Your task to perform on an android device: Open Maps and search for coffee Image 0: 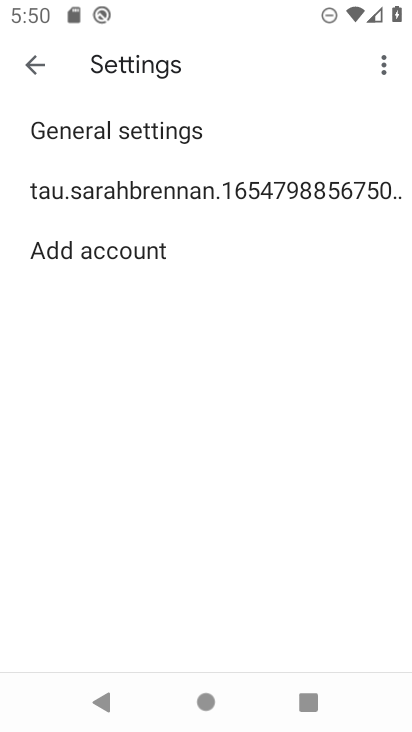
Step 0: press home button
Your task to perform on an android device: Open Maps and search for coffee Image 1: 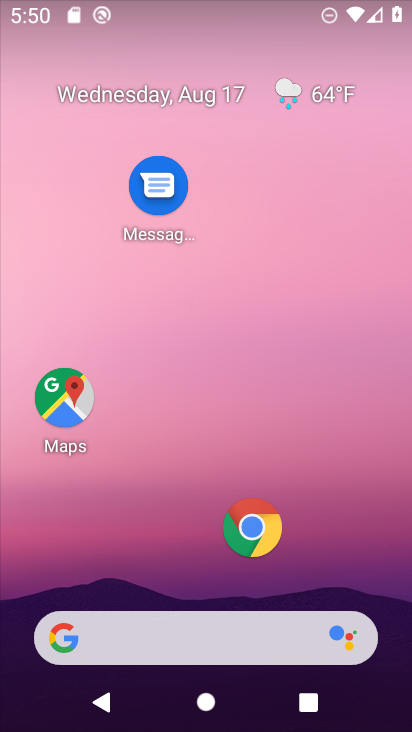
Step 1: drag from (188, 403) to (193, 175)
Your task to perform on an android device: Open Maps and search for coffee Image 2: 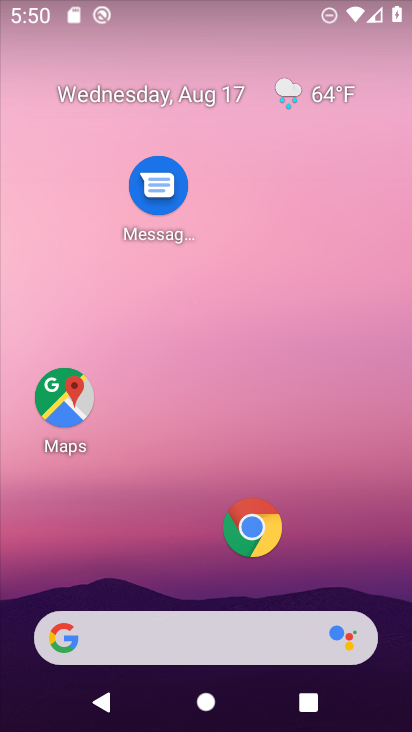
Step 2: click (54, 418)
Your task to perform on an android device: Open Maps and search for coffee Image 3: 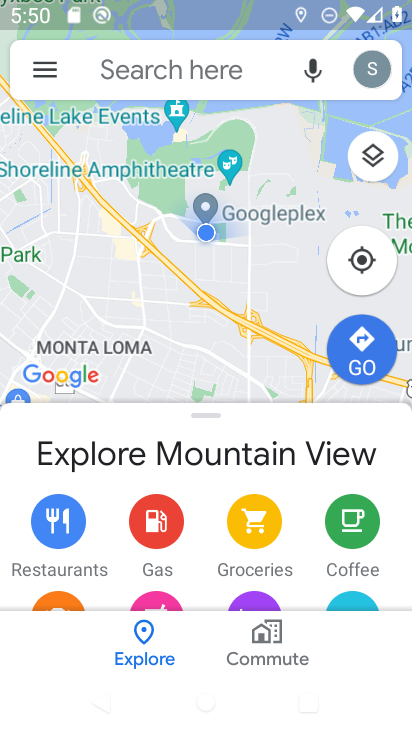
Step 3: click (134, 71)
Your task to perform on an android device: Open Maps and search for coffee Image 4: 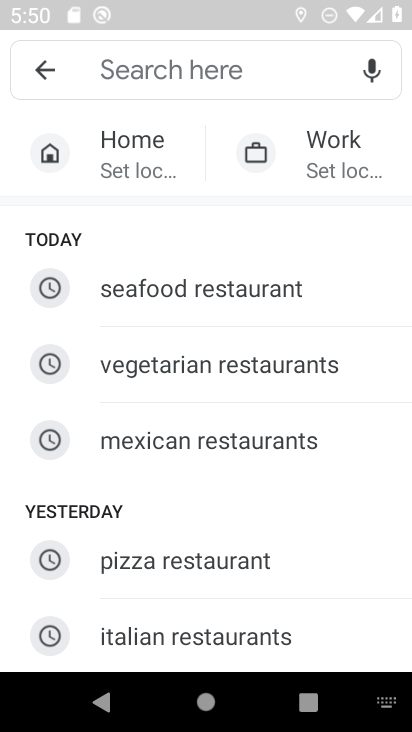
Step 4: drag from (137, 552) to (153, 180)
Your task to perform on an android device: Open Maps and search for coffee Image 5: 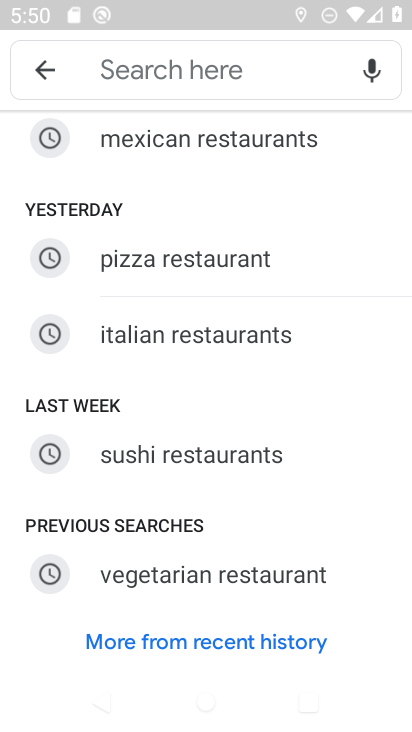
Step 5: drag from (132, 575) to (132, 213)
Your task to perform on an android device: Open Maps and search for coffee Image 6: 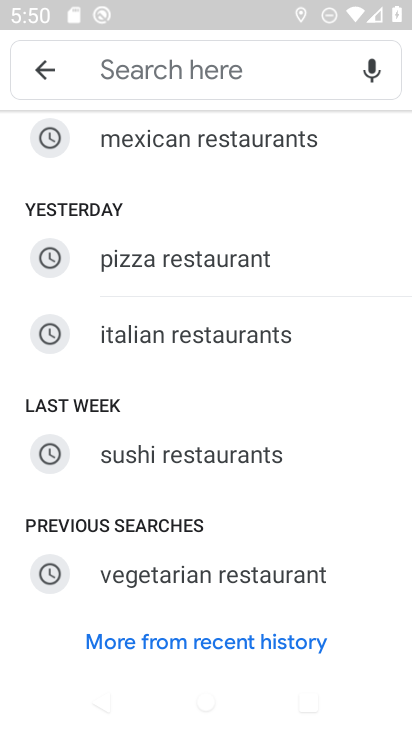
Step 6: click (137, 631)
Your task to perform on an android device: Open Maps and search for coffee Image 7: 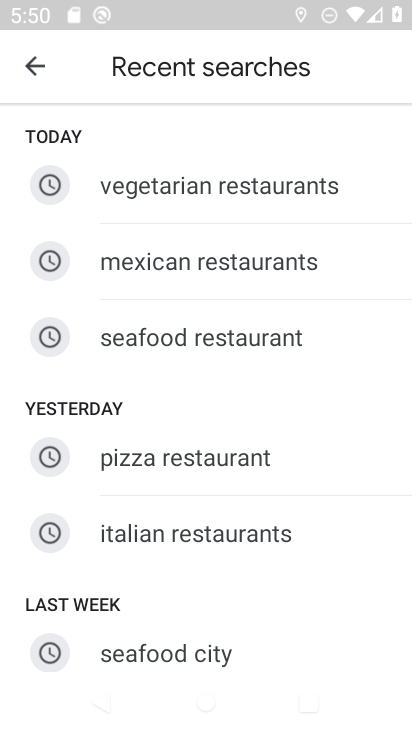
Step 7: drag from (143, 667) to (164, 283)
Your task to perform on an android device: Open Maps and search for coffee Image 8: 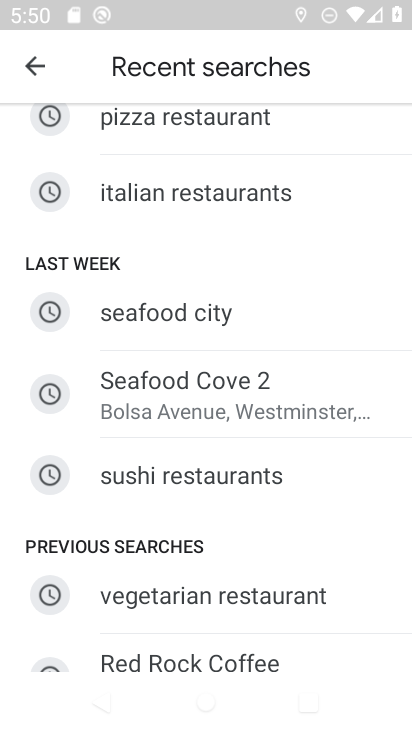
Step 8: click (32, 60)
Your task to perform on an android device: Open Maps and search for coffee Image 9: 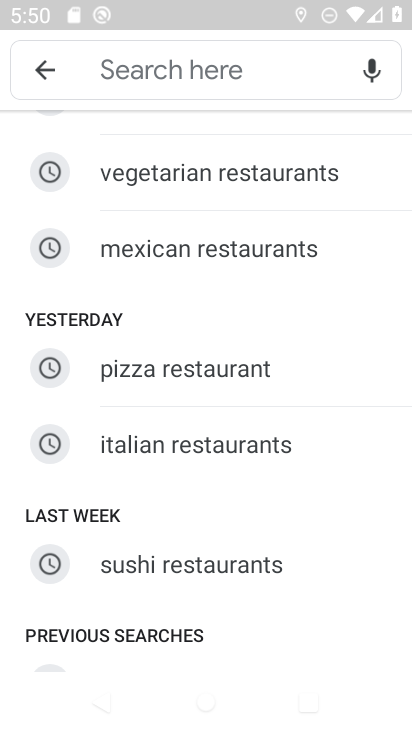
Step 9: click (149, 70)
Your task to perform on an android device: Open Maps and search for coffee Image 10: 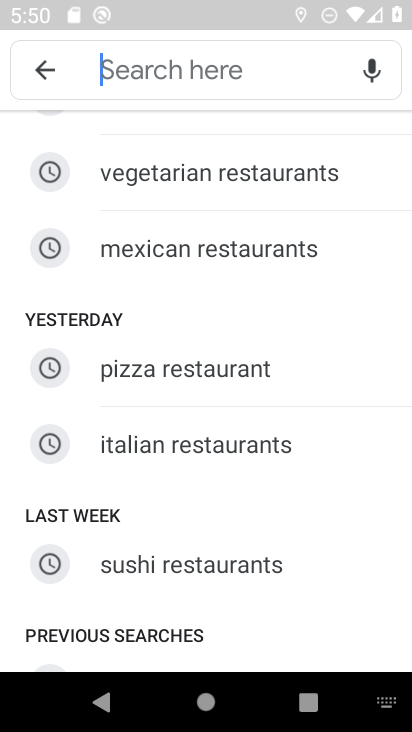
Step 10: type "coffee"
Your task to perform on an android device: Open Maps and search for coffee Image 11: 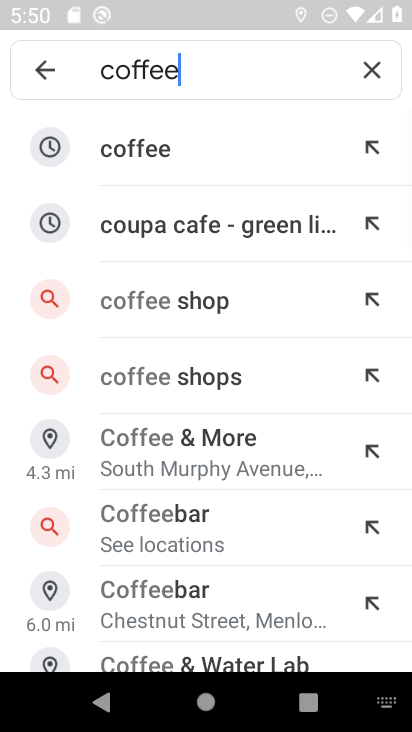
Step 11: click (129, 156)
Your task to perform on an android device: Open Maps and search for coffee Image 12: 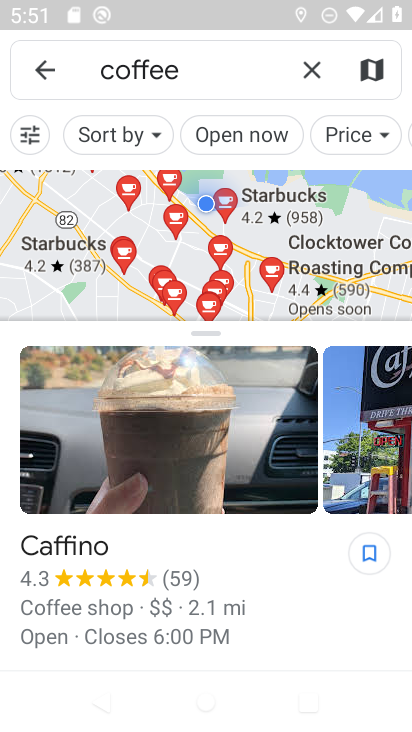
Step 12: task complete